Your task to perform on an android device: uninstall "Google Sheets" Image 0: 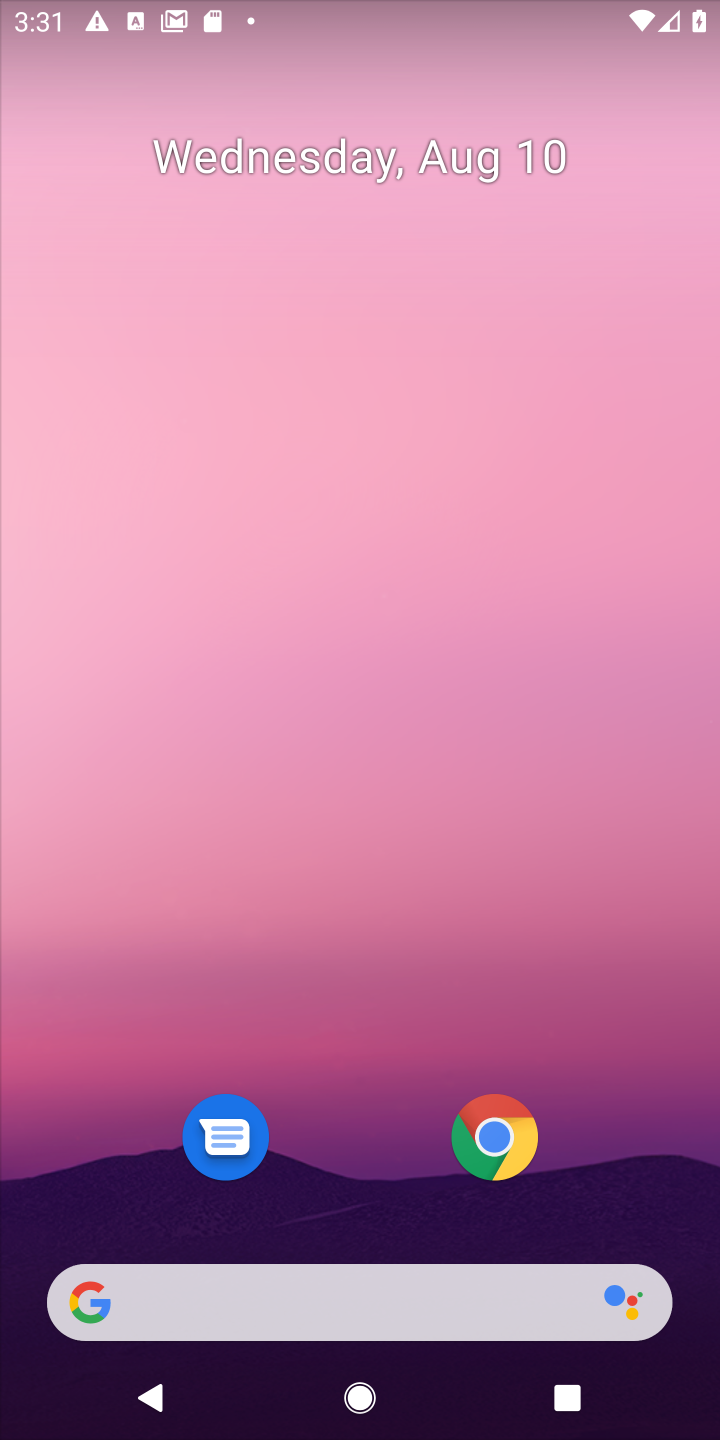
Step 0: drag from (347, 819) to (395, 138)
Your task to perform on an android device: uninstall "Google Sheets" Image 1: 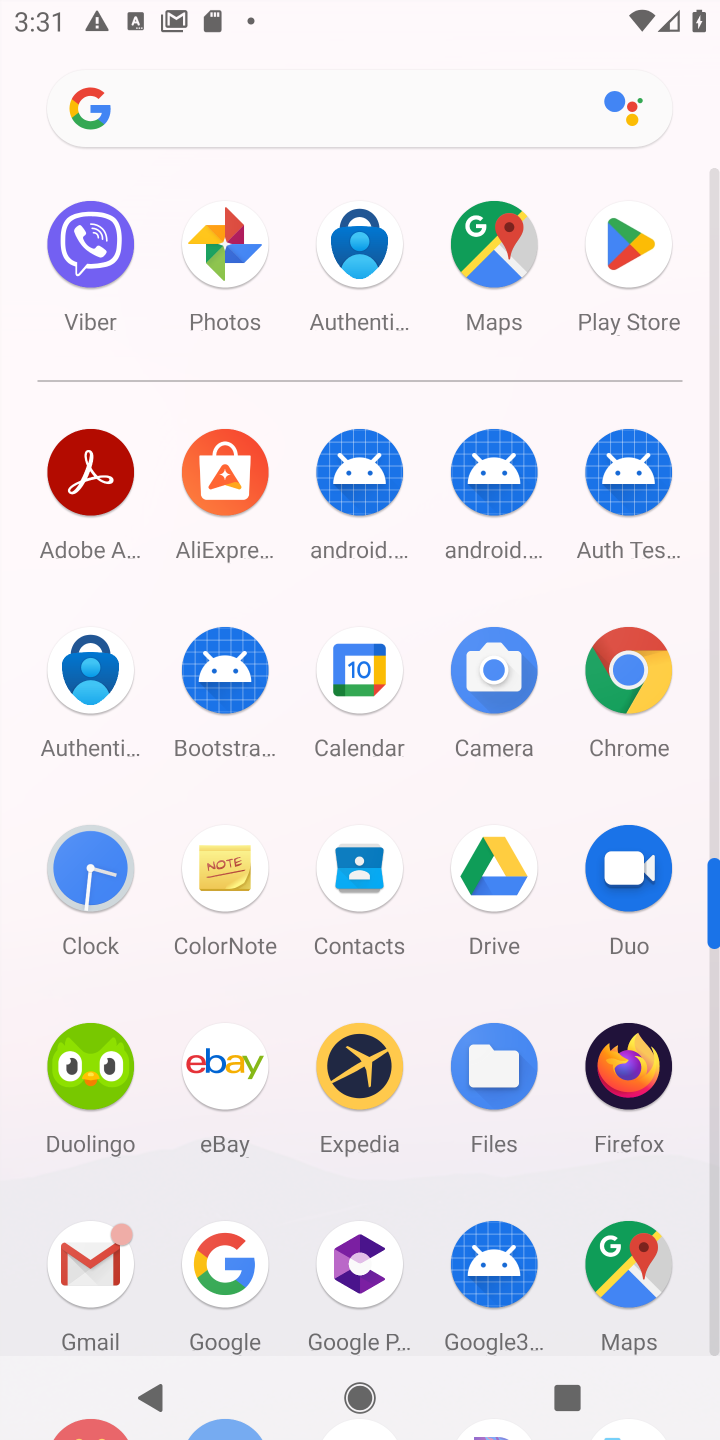
Step 1: click (627, 270)
Your task to perform on an android device: uninstall "Google Sheets" Image 2: 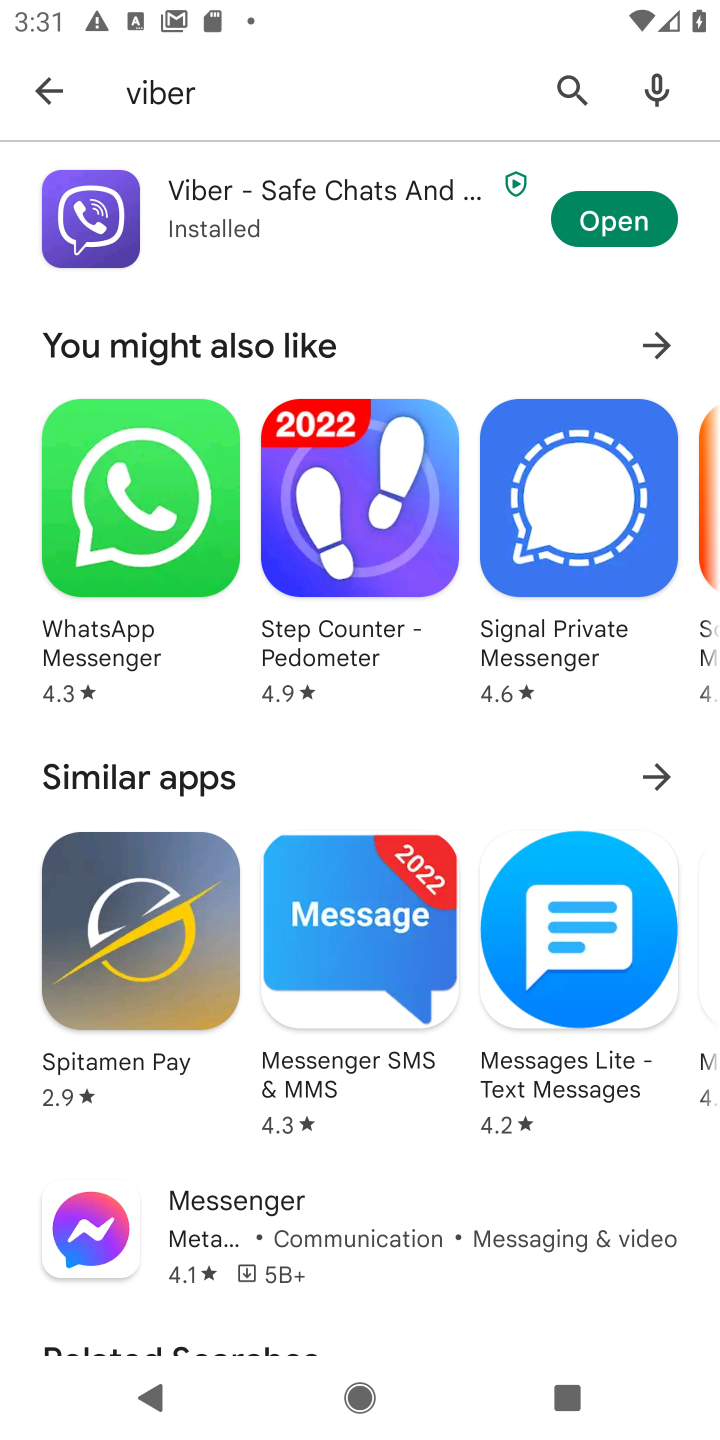
Step 2: click (216, 109)
Your task to perform on an android device: uninstall "Google Sheets" Image 3: 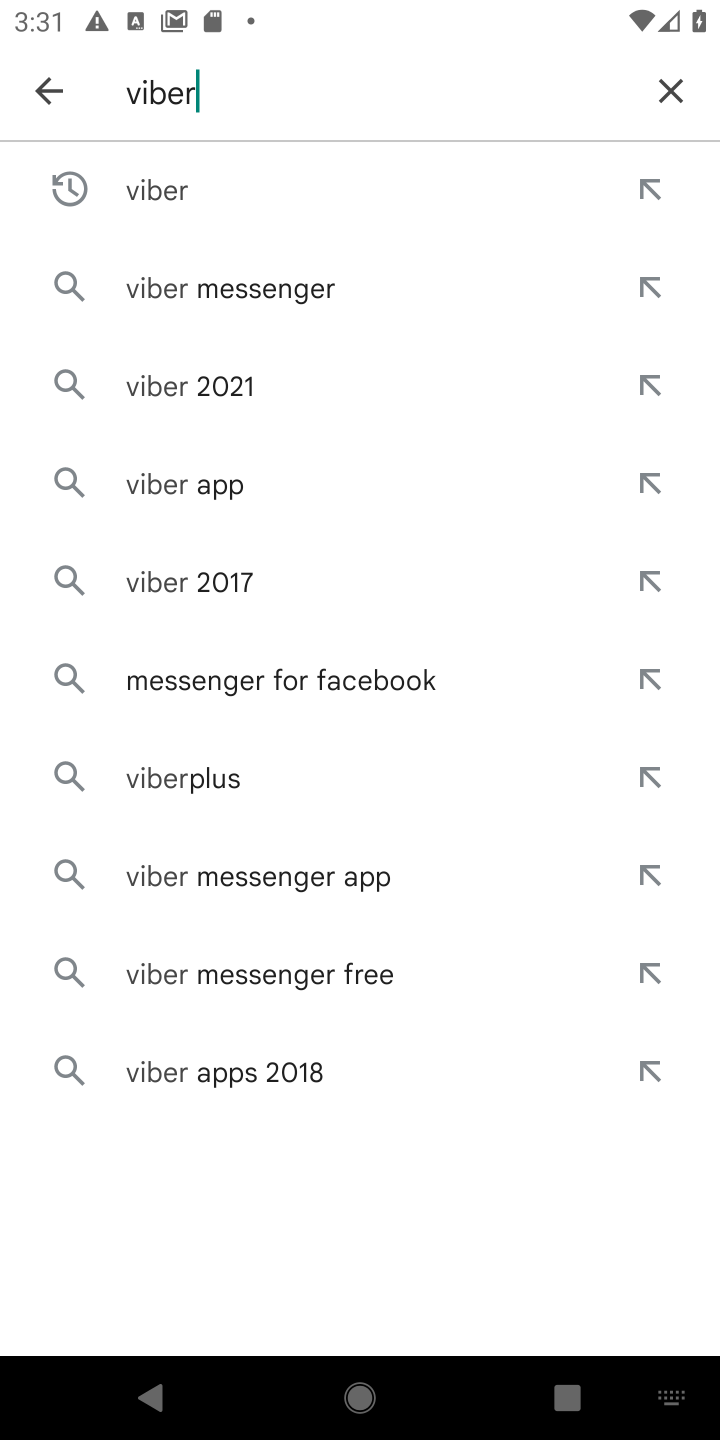
Step 3: click (684, 91)
Your task to perform on an android device: uninstall "Google Sheets" Image 4: 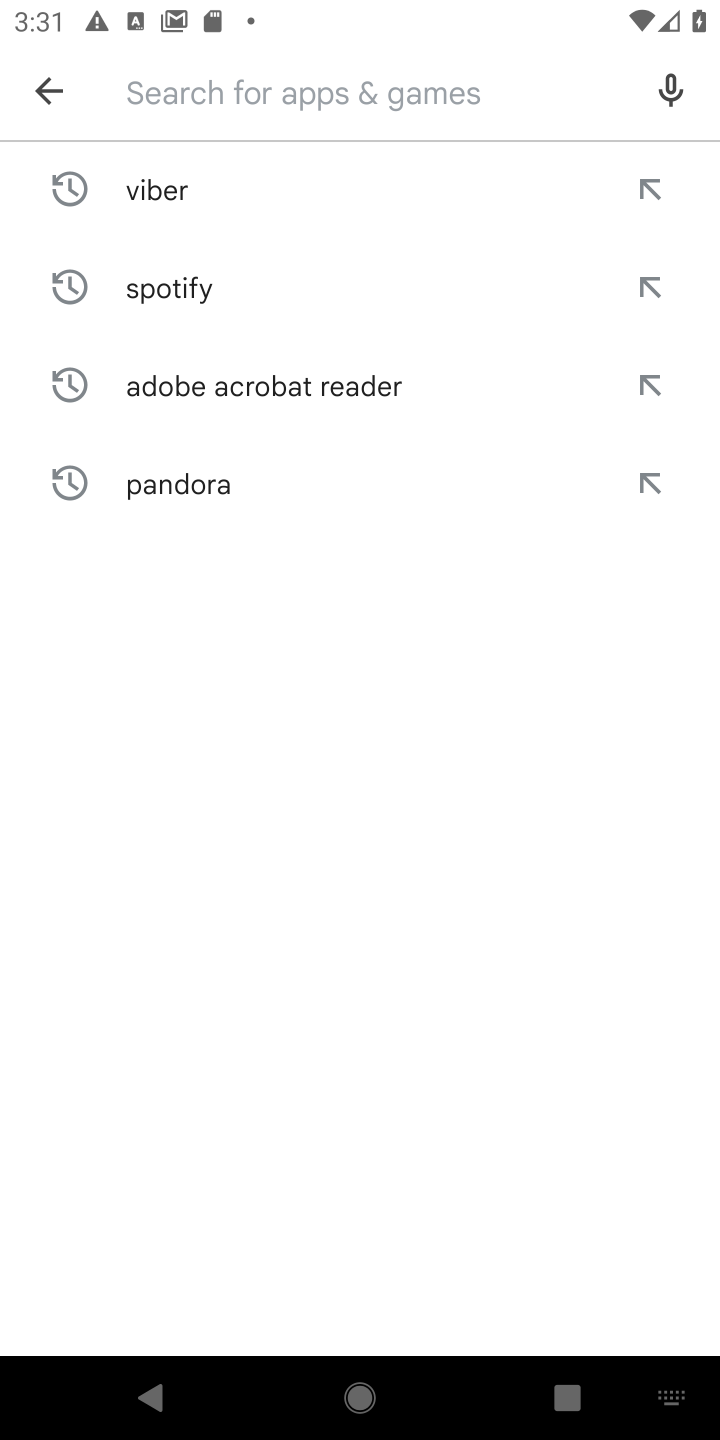
Step 4: type "google sheets"
Your task to perform on an android device: uninstall "Google Sheets" Image 5: 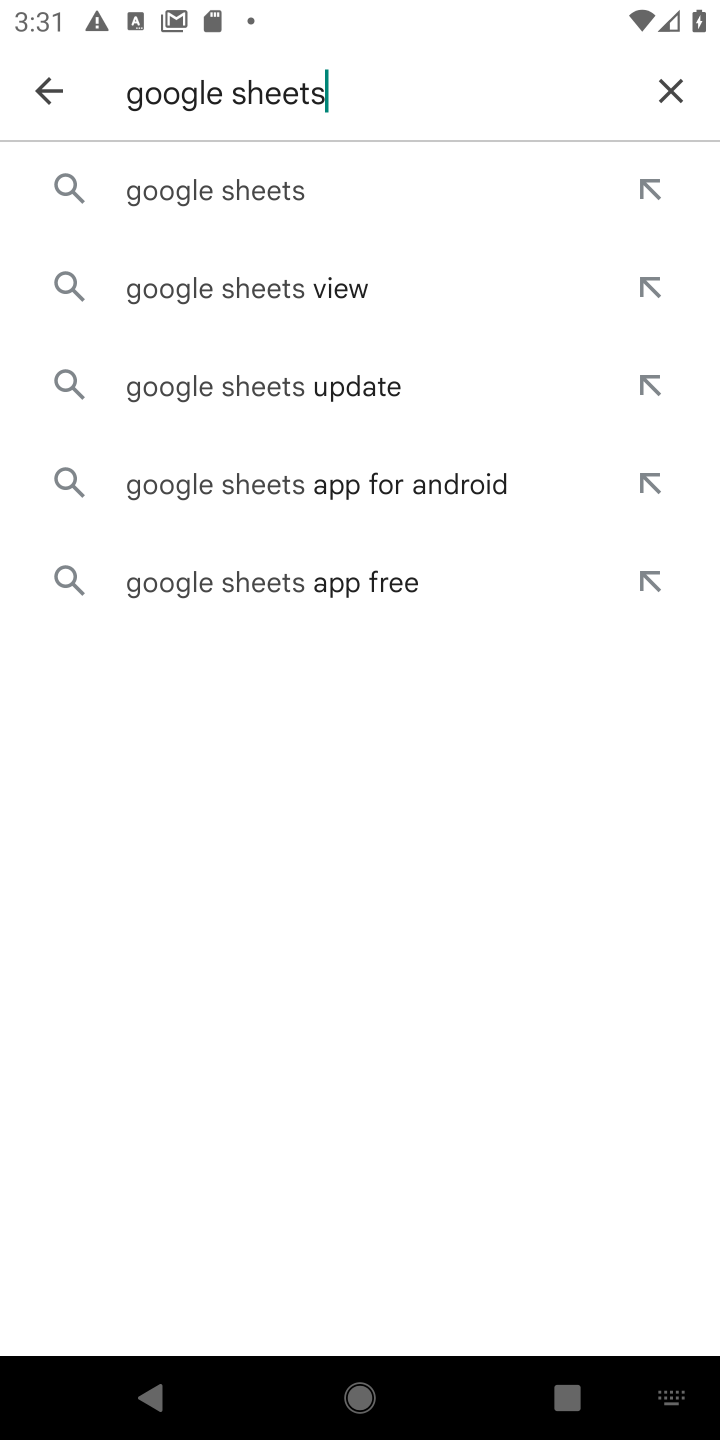
Step 5: click (288, 190)
Your task to perform on an android device: uninstall "Google Sheets" Image 6: 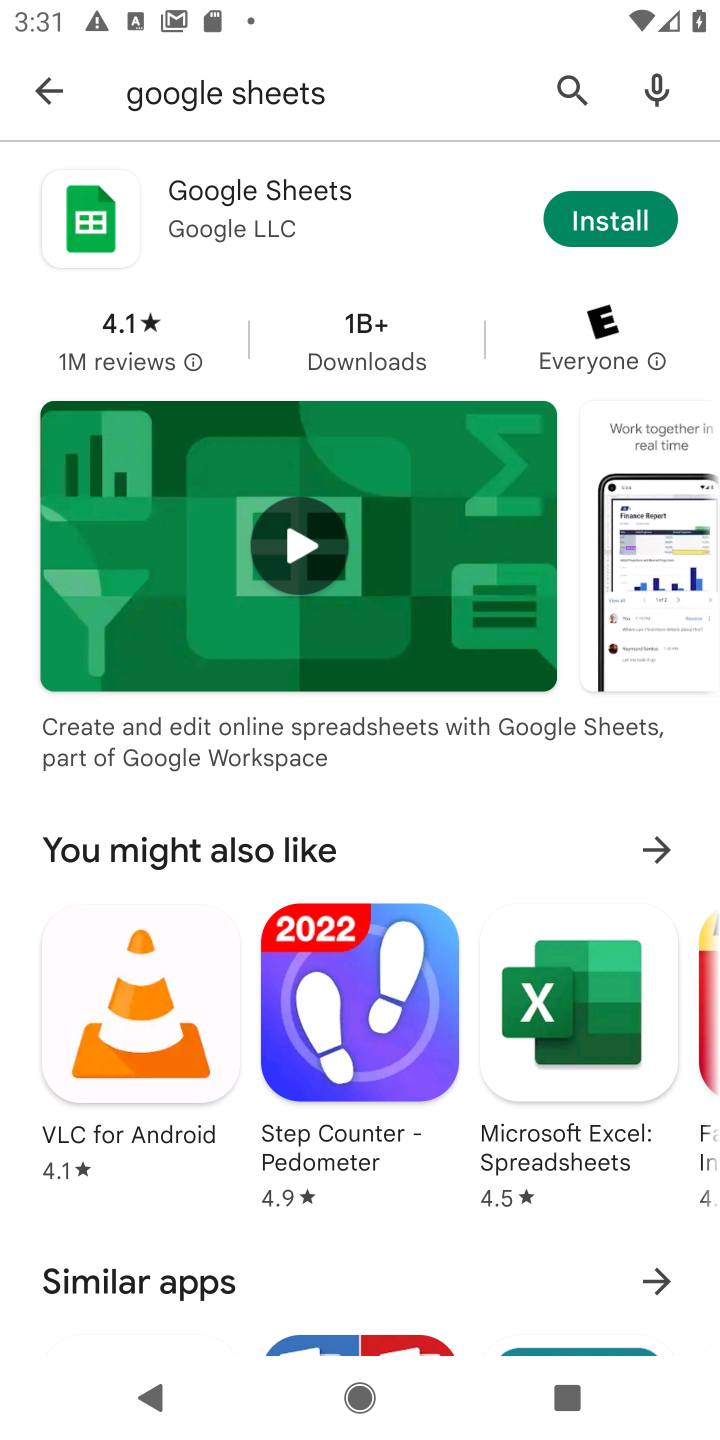
Step 6: task complete